Your task to perform on an android device: toggle pop-ups in chrome Image 0: 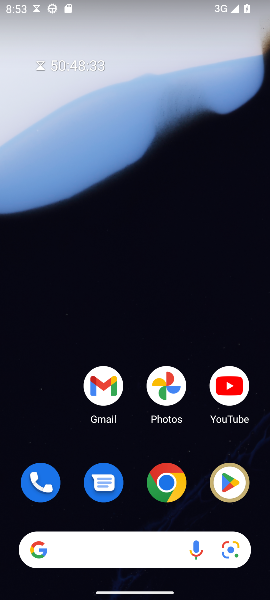
Step 0: drag from (106, 510) to (3, 35)
Your task to perform on an android device: toggle pop-ups in chrome Image 1: 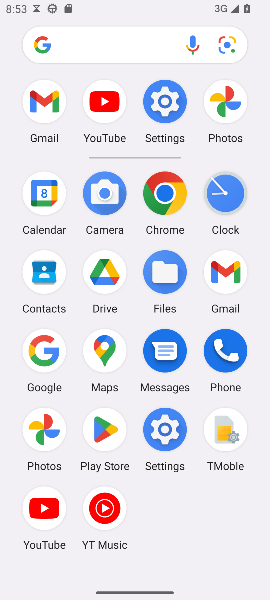
Step 1: click (157, 199)
Your task to perform on an android device: toggle pop-ups in chrome Image 2: 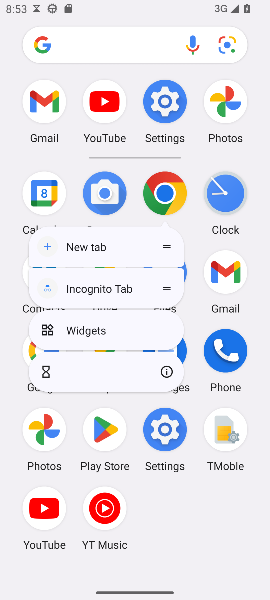
Step 2: click (157, 199)
Your task to perform on an android device: toggle pop-ups in chrome Image 3: 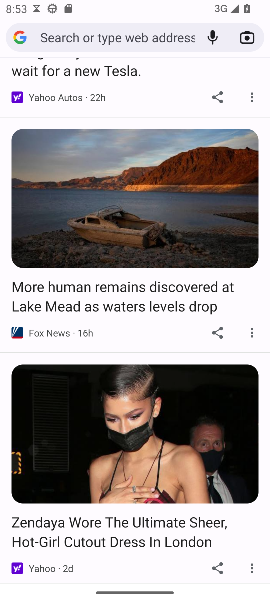
Step 3: drag from (216, 227) to (267, 444)
Your task to perform on an android device: toggle pop-ups in chrome Image 4: 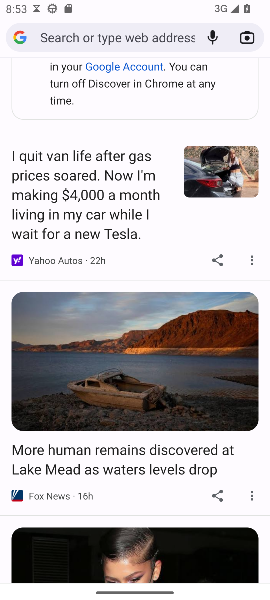
Step 4: click (179, 494)
Your task to perform on an android device: toggle pop-ups in chrome Image 5: 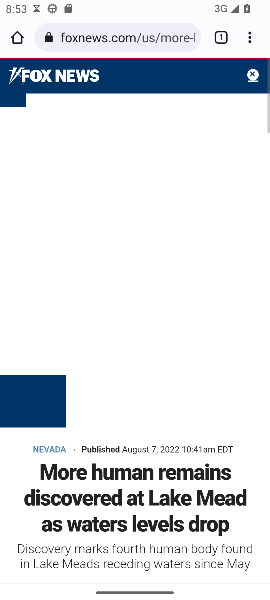
Step 5: drag from (71, 158) to (140, 461)
Your task to perform on an android device: toggle pop-ups in chrome Image 6: 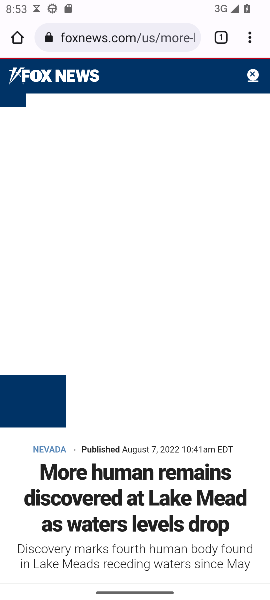
Step 6: drag from (244, 36) to (175, 527)
Your task to perform on an android device: toggle pop-ups in chrome Image 7: 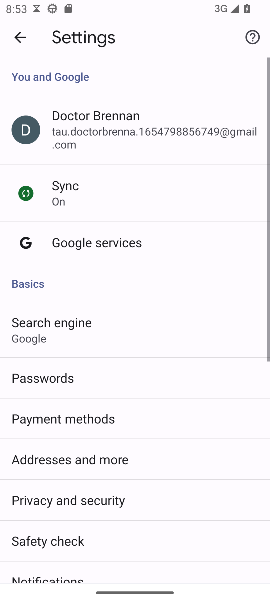
Step 7: drag from (101, 515) to (11, 89)
Your task to perform on an android device: toggle pop-ups in chrome Image 8: 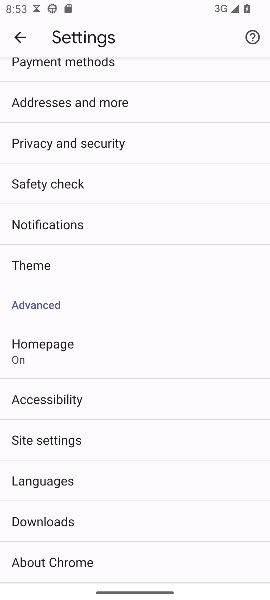
Step 8: click (70, 434)
Your task to perform on an android device: toggle pop-ups in chrome Image 9: 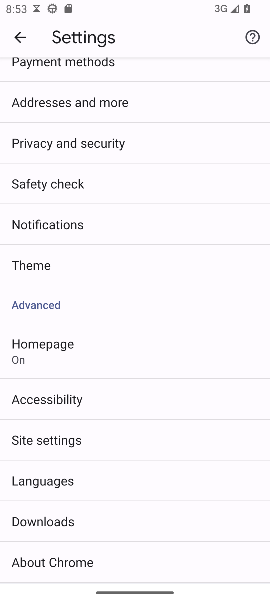
Step 9: click (66, 469)
Your task to perform on an android device: toggle pop-ups in chrome Image 10: 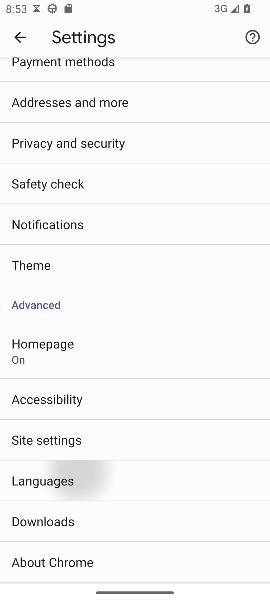
Step 10: click (49, 447)
Your task to perform on an android device: toggle pop-ups in chrome Image 11: 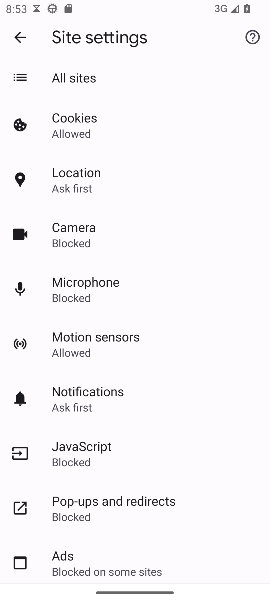
Step 11: click (127, 509)
Your task to perform on an android device: toggle pop-ups in chrome Image 12: 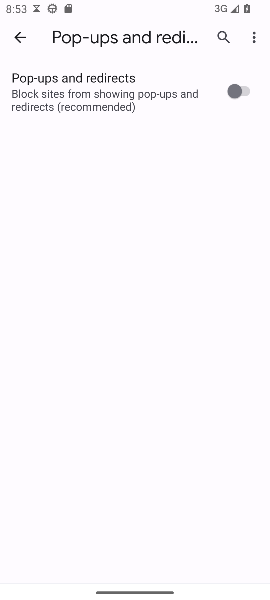
Step 12: click (225, 99)
Your task to perform on an android device: toggle pop-ups in chrome Image 13: 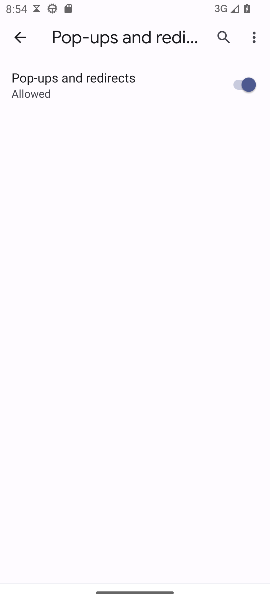
Step 13: task complete